Your task to perform on an android device: toggle translation in the chrome app Image 0: 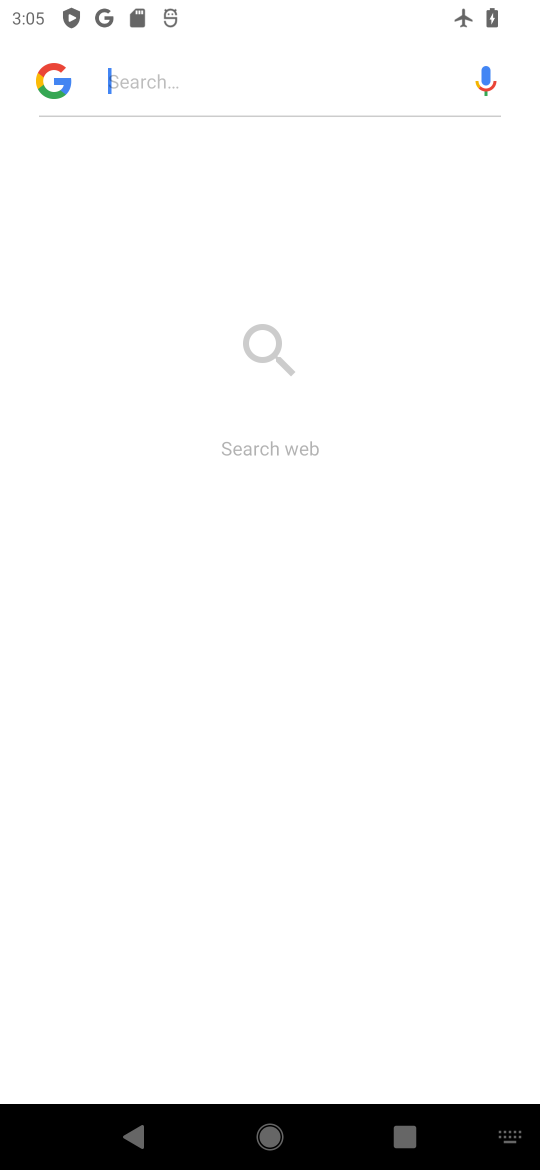
Step 0: press home button
Your task to perform on an android device: toggle translation in the chrome app Image 1: 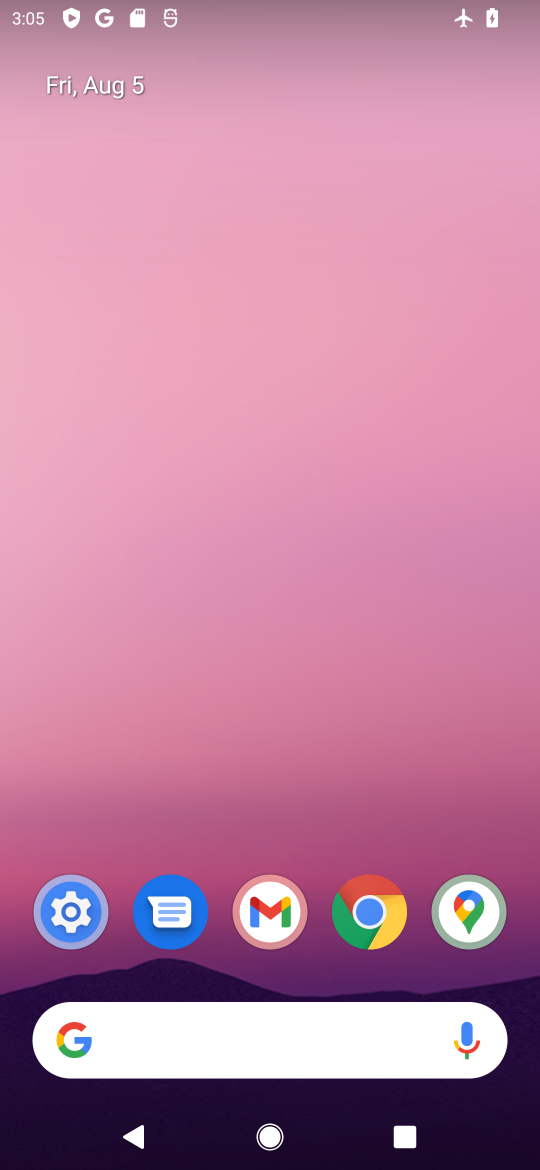
Step 1: click (365, 917)
Your task to perform on an android device: toggle translation in the chrome app Image 2: 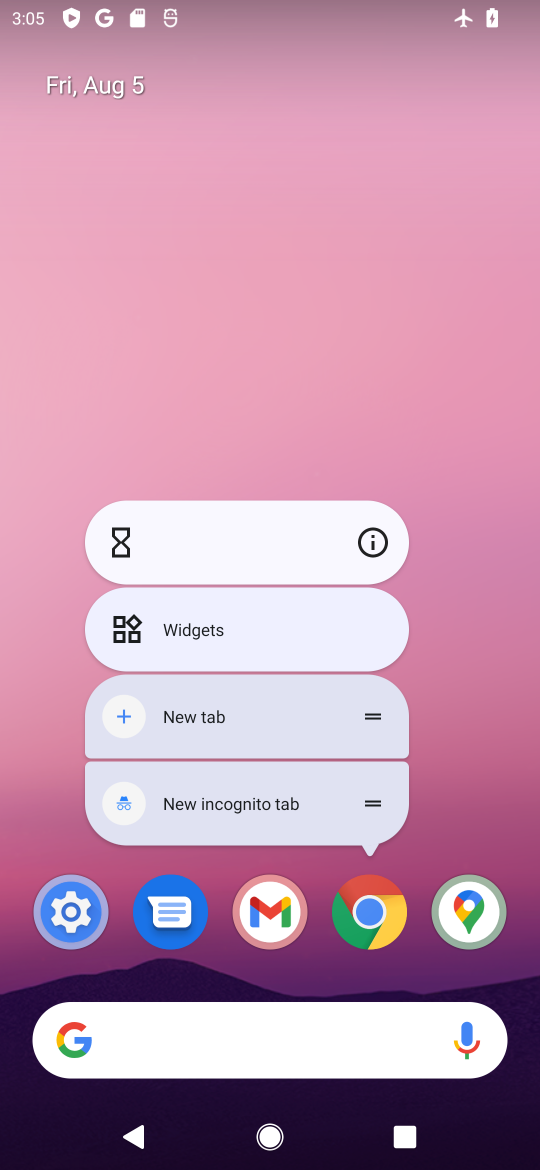
Step 2: click (360, 923)
Your task to perform on an android device: toggle translation in the chrome app Image 3: 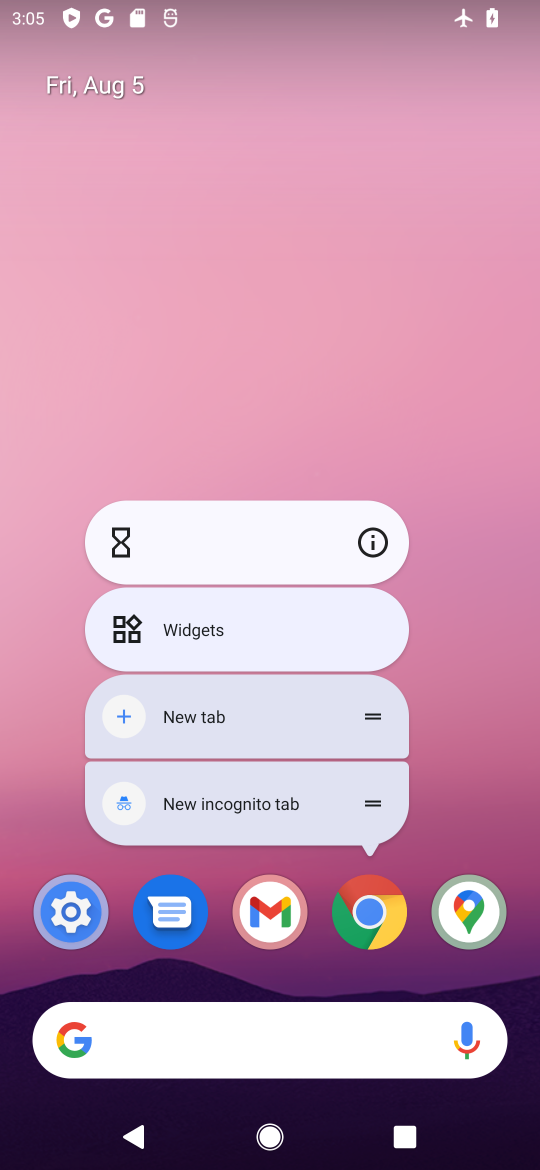
Step 3: click (353, 911)
Your task to perform on an android device: toggle translation in the chrome app Image 4: 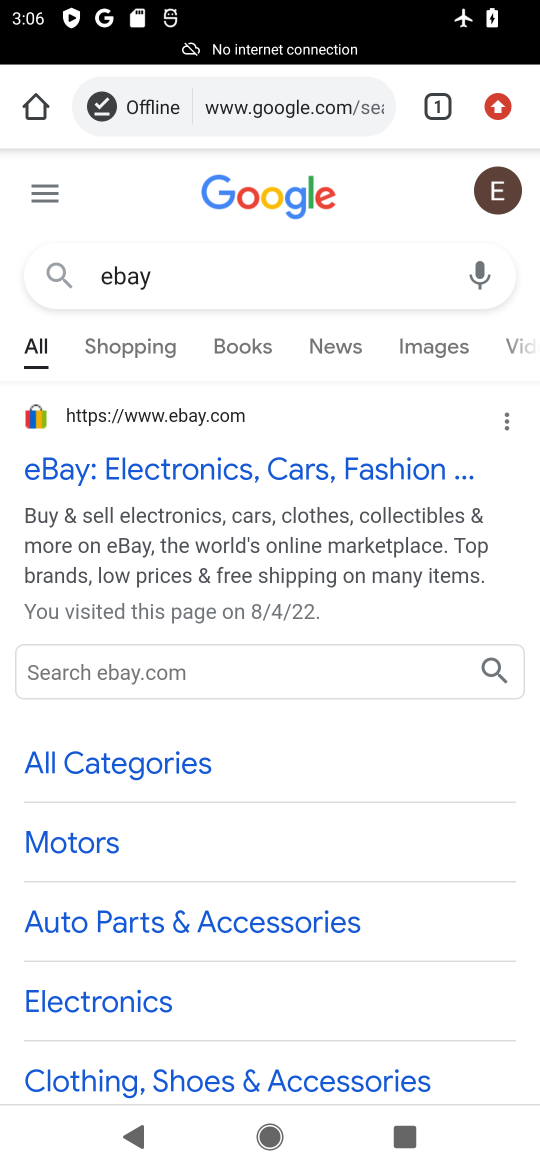
Step 4: click (501, 74)
Your task to perform on an android device: toggle translation in the chrome app Image 5: 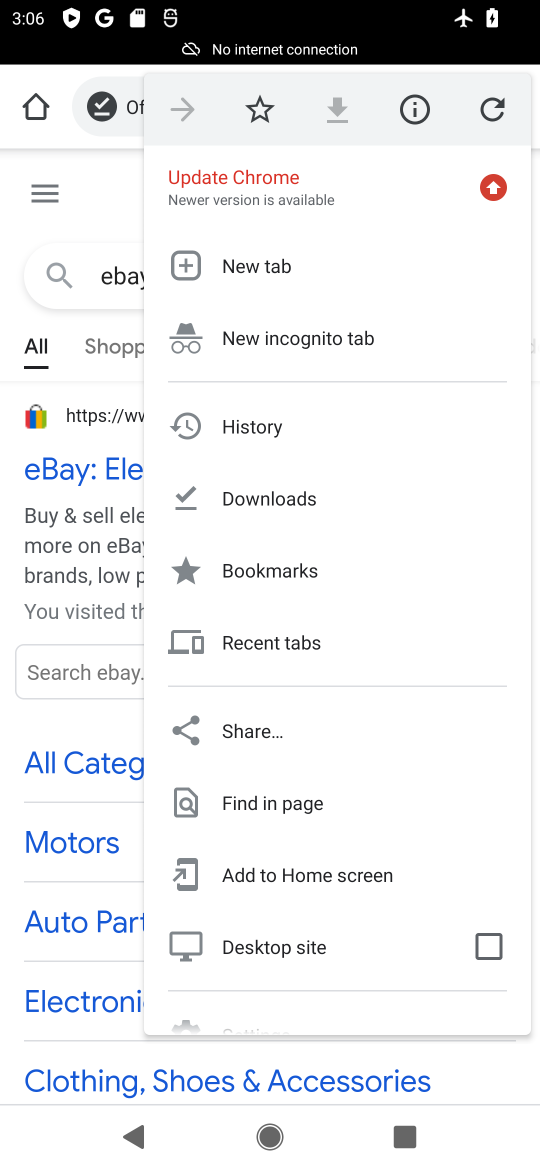
Step 5: drag from (233, 946) to (261, 613)
Your task to perform on an android device: toggle translation in the chrome app Image 6: 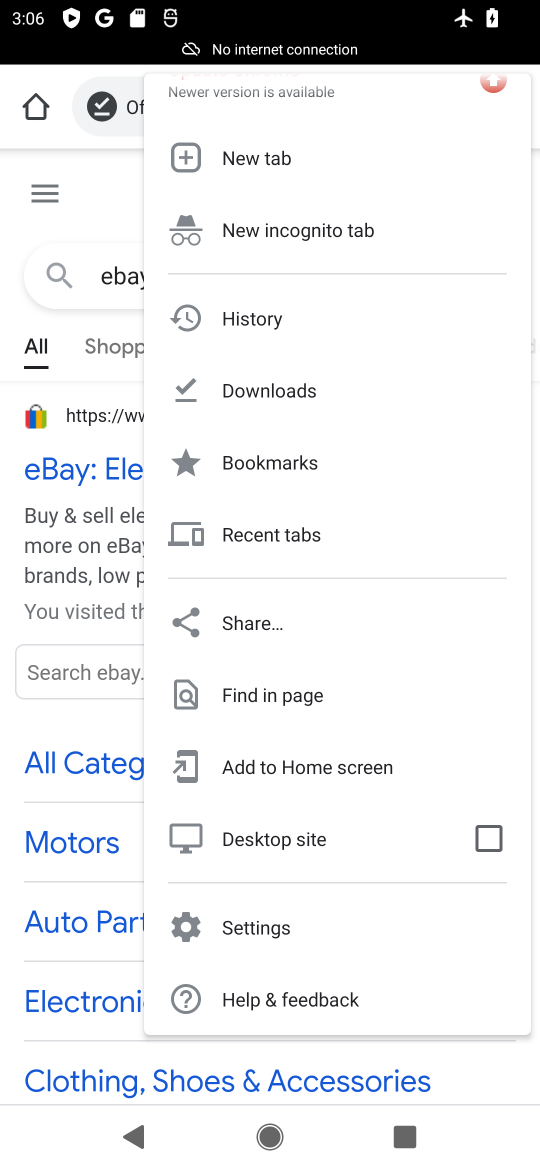
Step 6: click (264, 933)
Your task to perform on an android device: toggle translation in the chrome app Image 7: 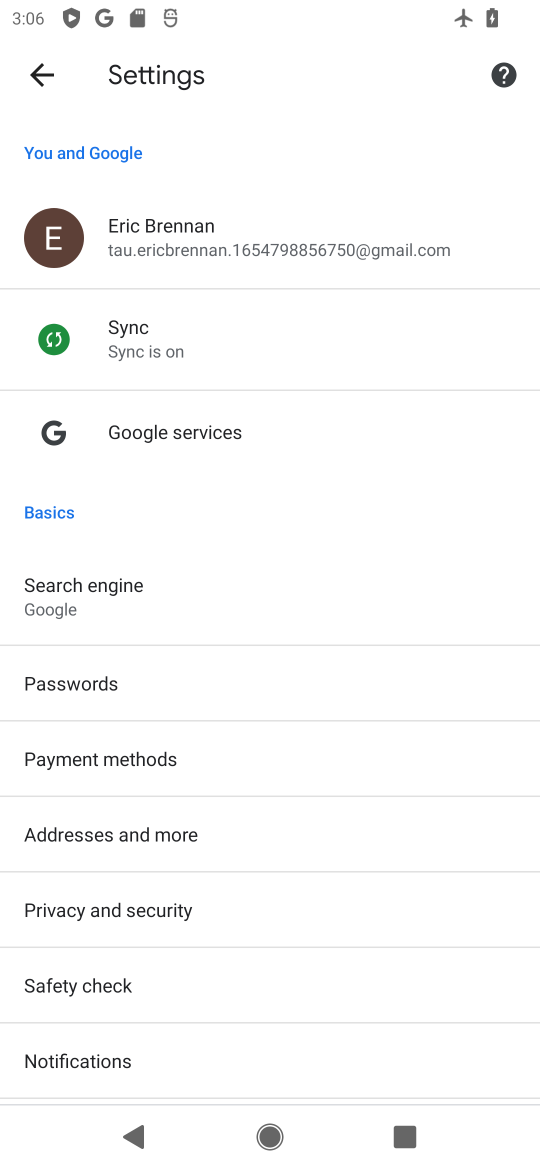
Step 7: drag from (131, 905) to (197, 348)
Your task to perform on an android device: toggle translation in the chrome app Image 8: 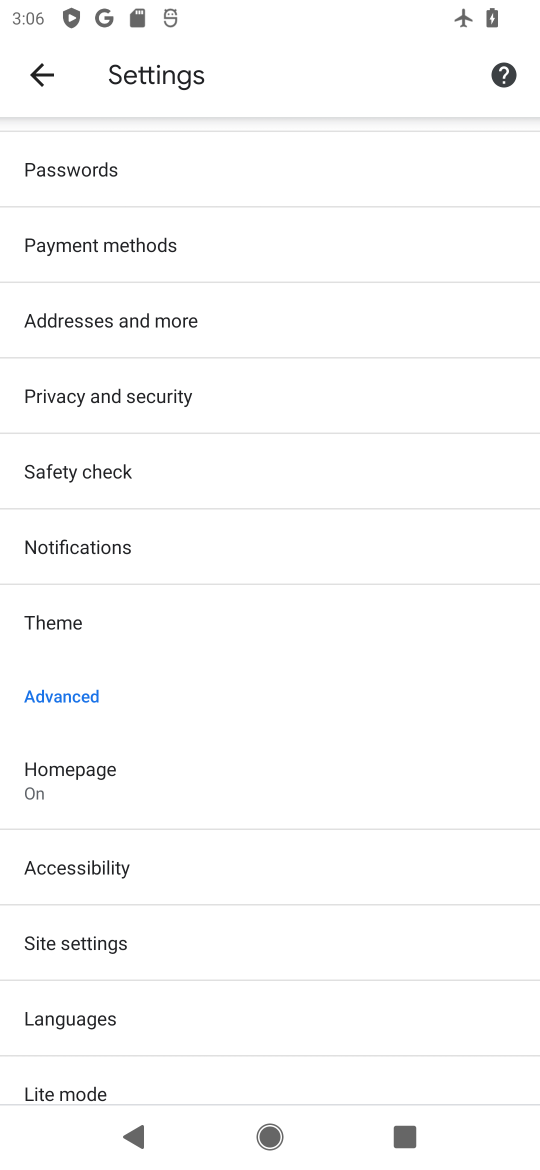
Step 8: click (127, 1031)
Your task to perform on an android device: toggle translation in the chrome app Image 9: 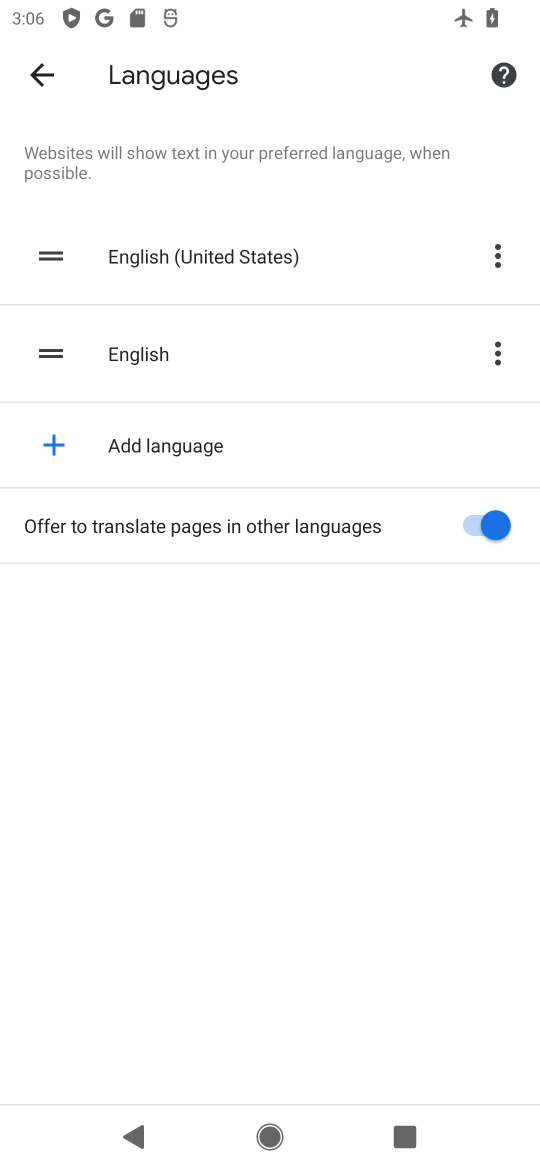
Step 9: click (453, 525)
Your task to perform on an android device: toggle translation in the chrome app Image 10: 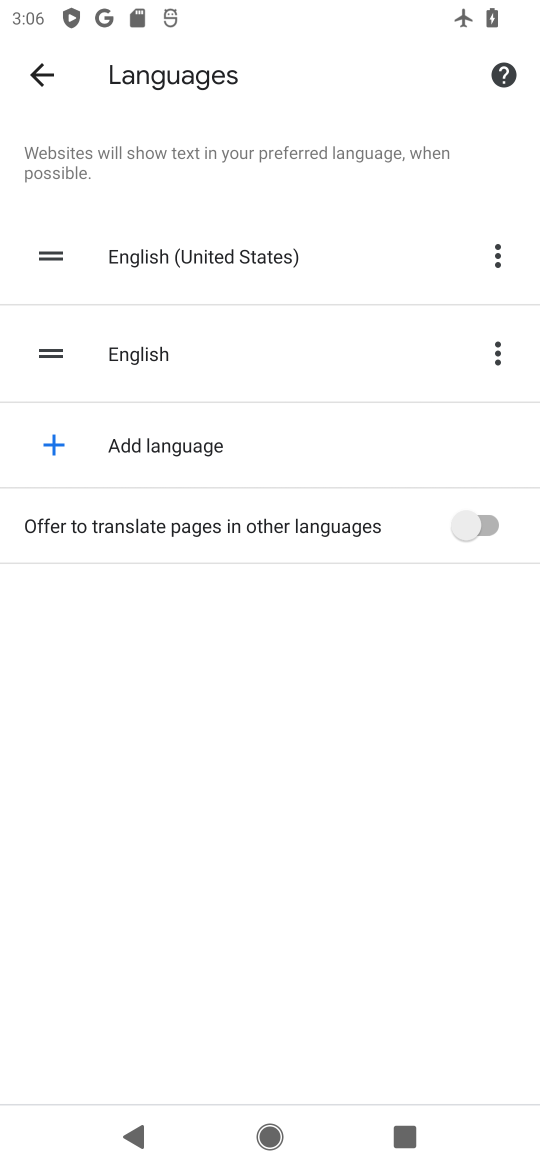
Step 10: task complete